Your task to perform on an android device: What's the weather today? Image 0: 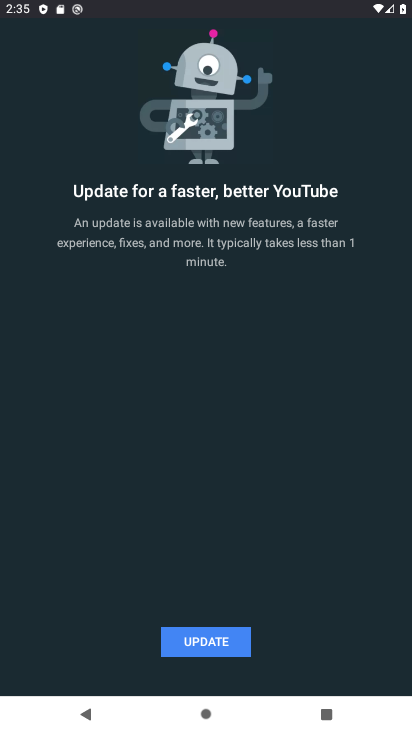
Step 0: press home button
Your task to perform on an android device: What's the weather today? Image 1: 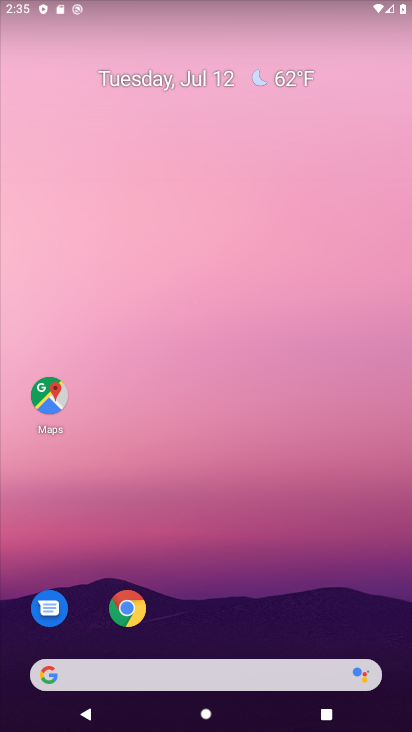
Step 1: click (171, 671)
Your task to perform on an android device: What's the weather today? Image 2: 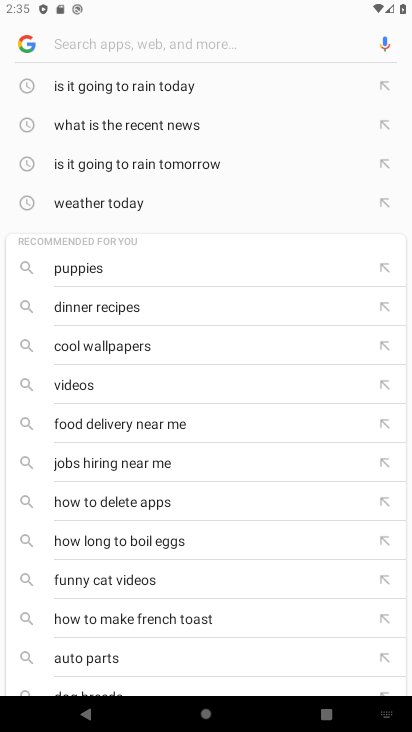
Step 2: click (128, 202)
Your task to perform on an android device: What's the weather today? Image 3: 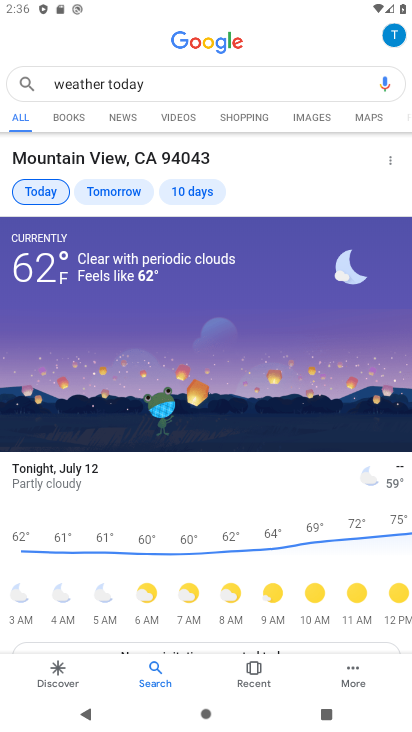
Step 3: task complete